Your task to perform on an android device: Open privacy settings Image 0: 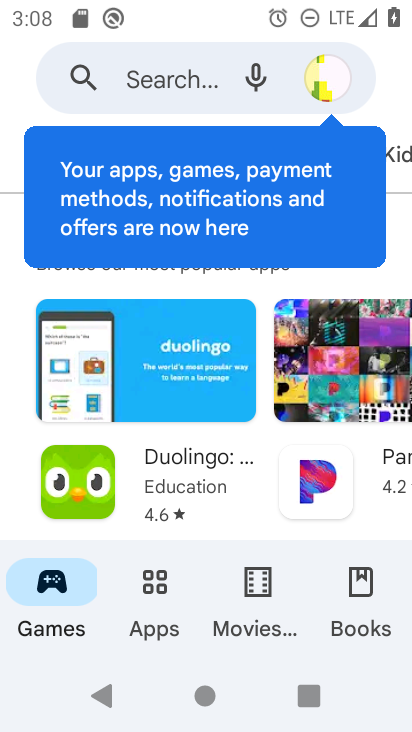
Step 0: press home button
Your task to perform on an android device: Open privacy settings Image 1: 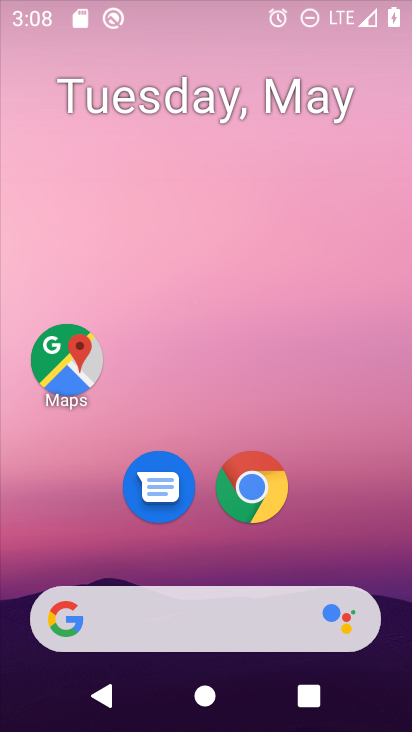
Step 1: drag from (33, 495) to (230, 138)
Your task to perform on an android device: Open privacy settings Image 2: 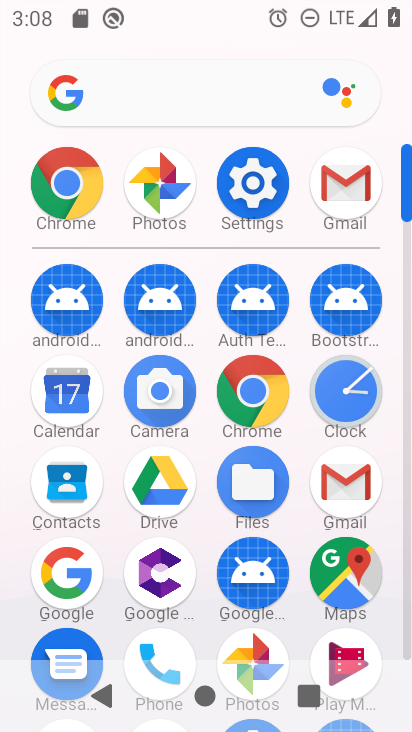
Step 2: click (258, 186)
Your task to perform on an android device: Open privacy settings Image 3: 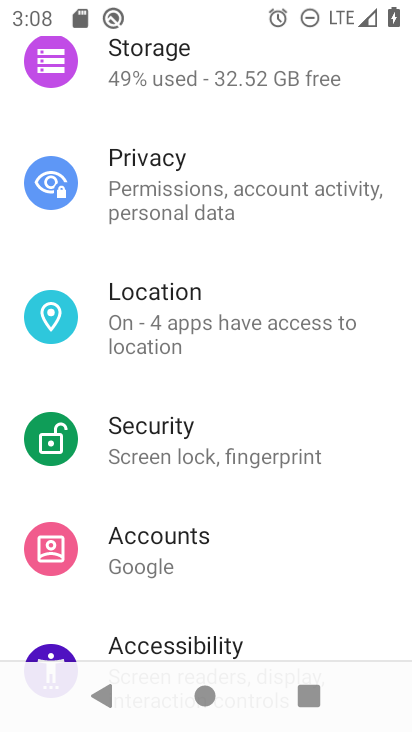
Step 3: click (207, 205)
Your task to perform on an android device: Open privacy settings Image 4: 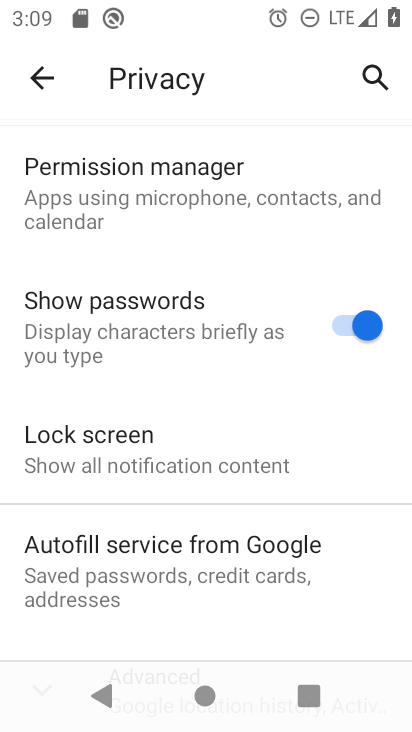
Step 4: task complete